Your task to perform on an android device: Open privacy settings Image 0: 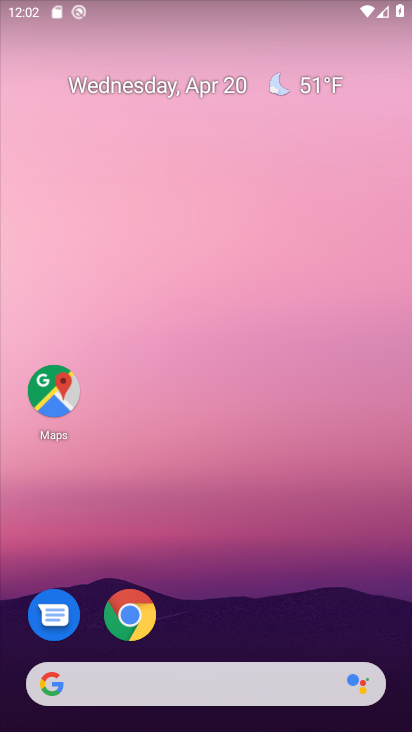
Step 0: drag from (201, 682) to (112, 0)
Your task to perform on an android device: Open privacy settings Image 1: 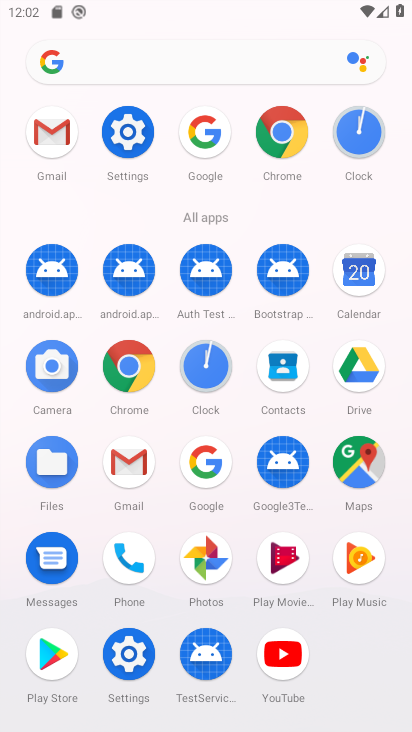
Step 1: click (133, 670)
Your task to perform on an android device: Open privacy settings Image 2: 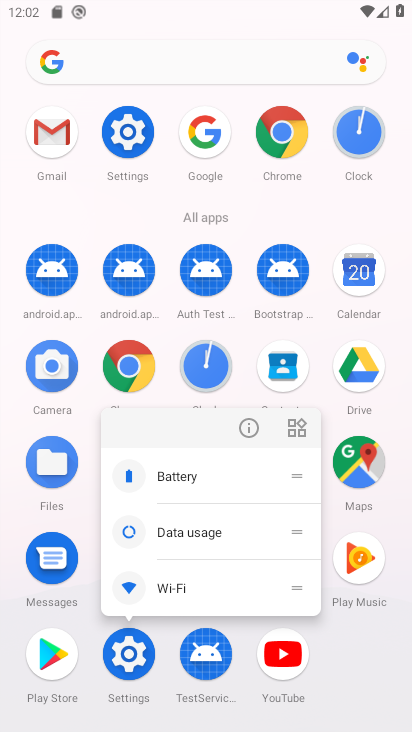
Step 2: click (141, 650)
Your task to perform on an android device: Open privacy settings Image 3: 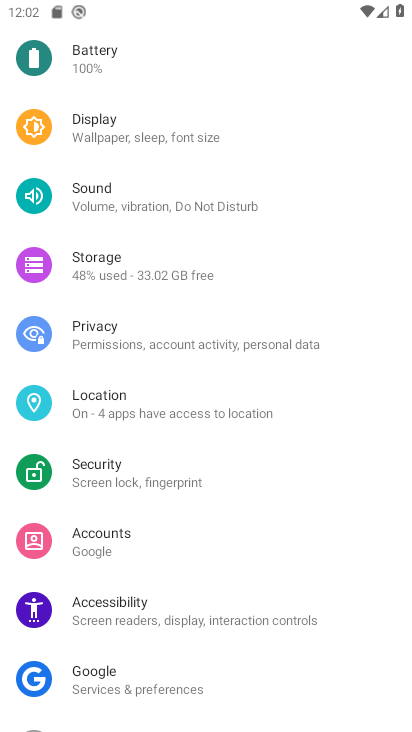
Step 3: click (114, 345)
Your task to perform on an android device: Open privacy settings Image 4: 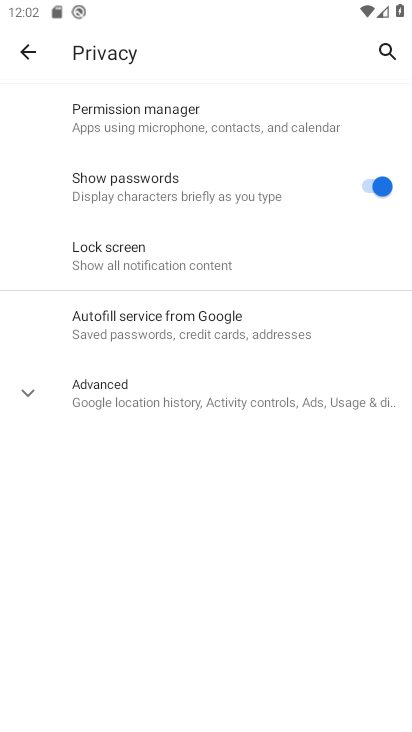
Step 4: task complete